Your task to perform on an android device: Open settings on Google Maps Image 0: 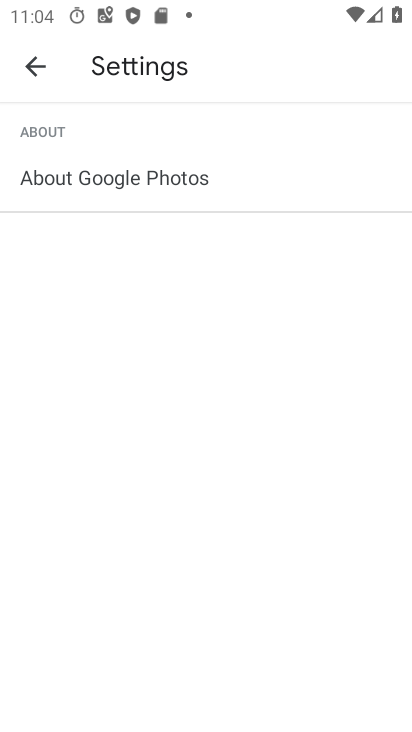
Step 0: press home button
Your task to perform on an android device: Open settings on Google Maps Image 1: 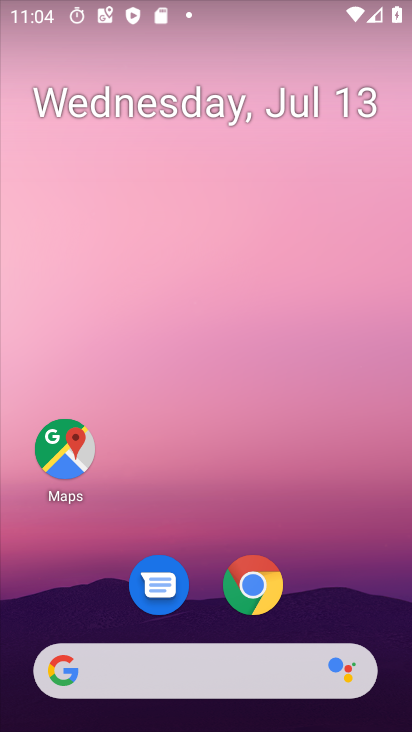
Step 1: click (73, 462)
Your task to perform on an android device: Open settings on Google Maps Image 2: 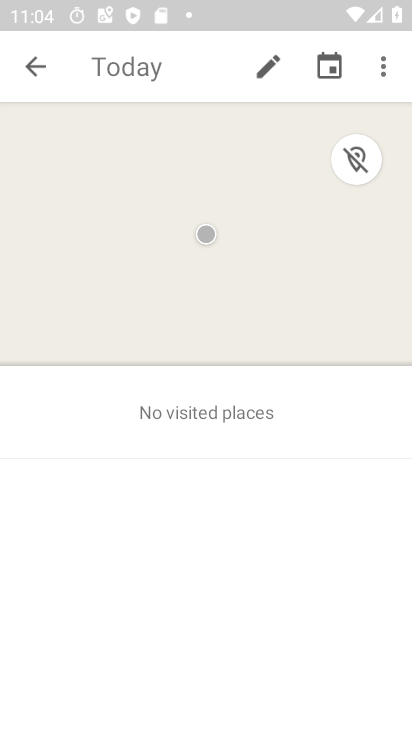
Step 2: click (41, 65)
Your task to perform on an android device: Open settings on Google Maps Image 3: 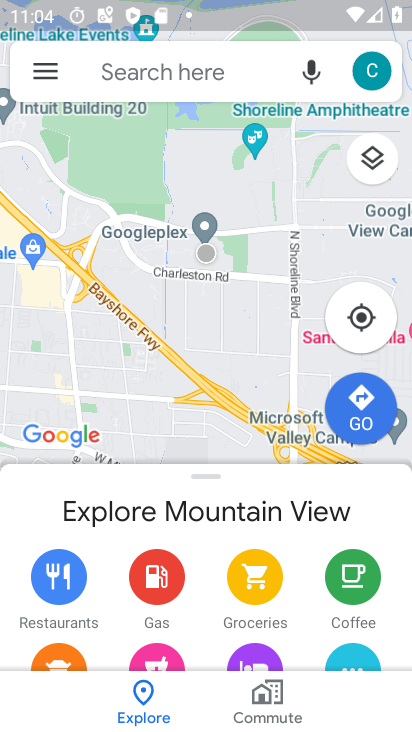
Step 3: click (50, 73)
Your task to perform on an android device: Open settings on Google Maps Image 4: 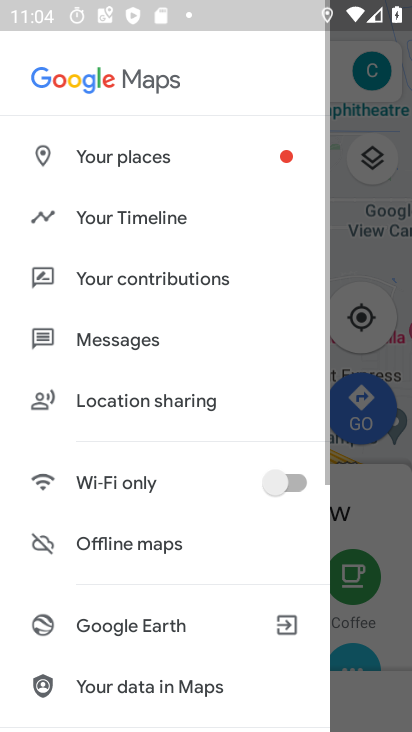
Step 4: drag from (164, 577) to (196, 163)
Your task to perform on an android device: Open settings on Google Maps Image 5: 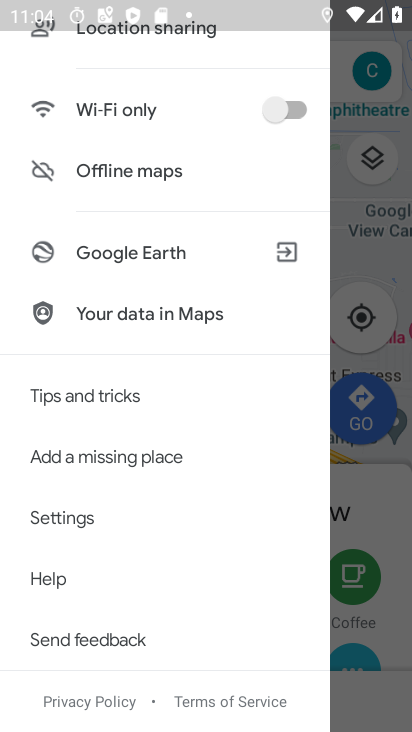
Step 5: click (82, 517)
Your task to perform on an android device: Open settings on Google Maps Image 6: 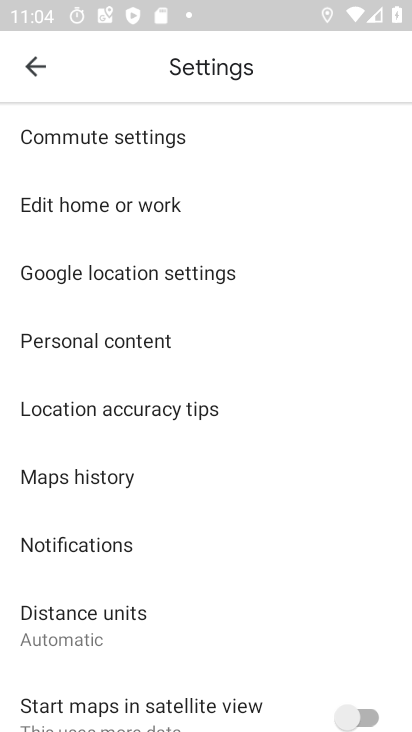
Step 6: task complete